Your task to perform on an android device: Open internet settings Image 0: 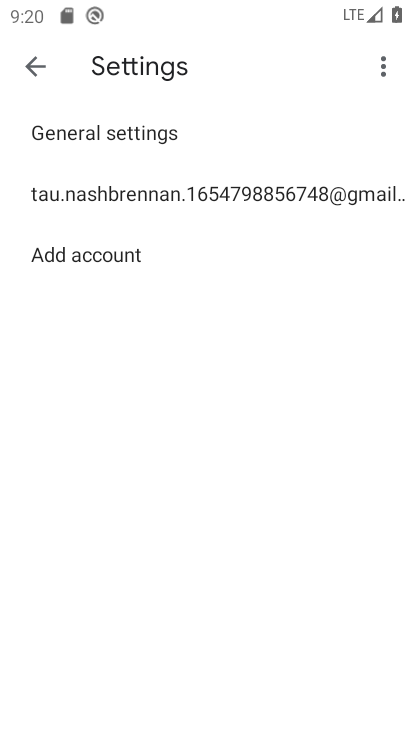
Step 0: press home button
Your task to perform on an android device: Open internet settings Image 1: 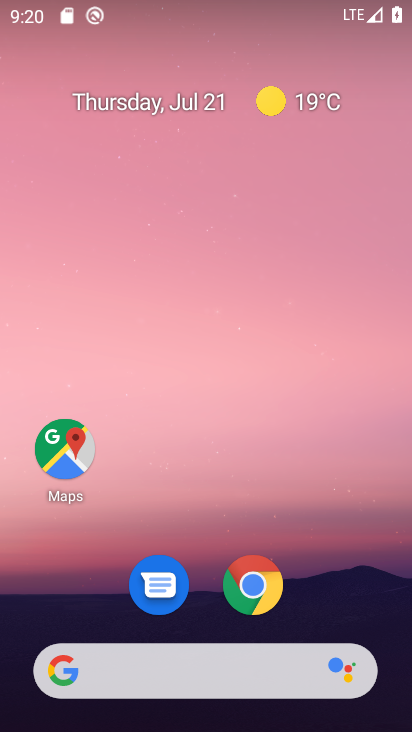
Step 1: drag from (332, 506) to (356, 53)
Your task to perform on an android device: Open internet settings Image 2: 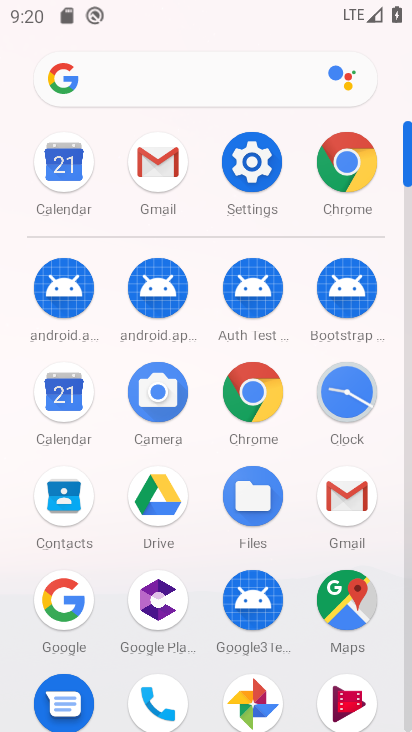
Step 2: click (248, 160)
Your task to perform on an android device: Open internet settings Image 3: 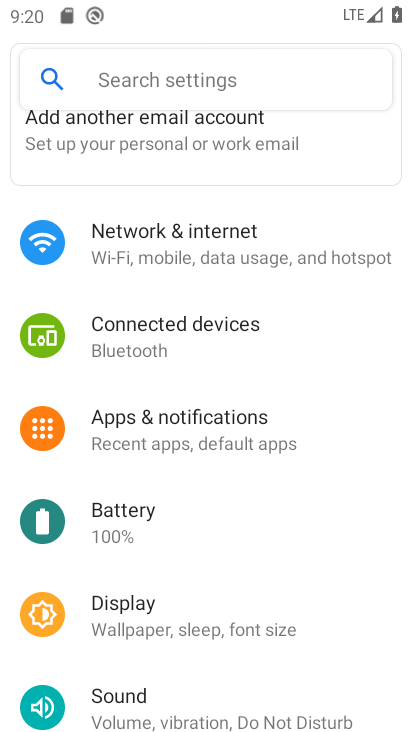
Step 3: click (232, 257)
Your task to perform on an android device: Open internet settings Image 4: 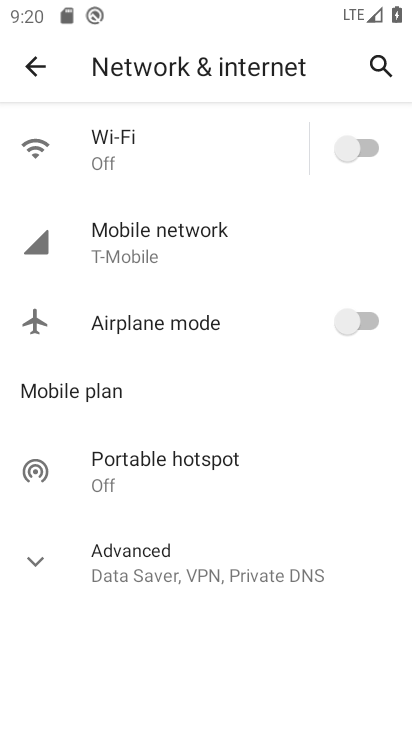
Step 4: task complete